Your task to perform on an android device: Open the web browser Image 0: 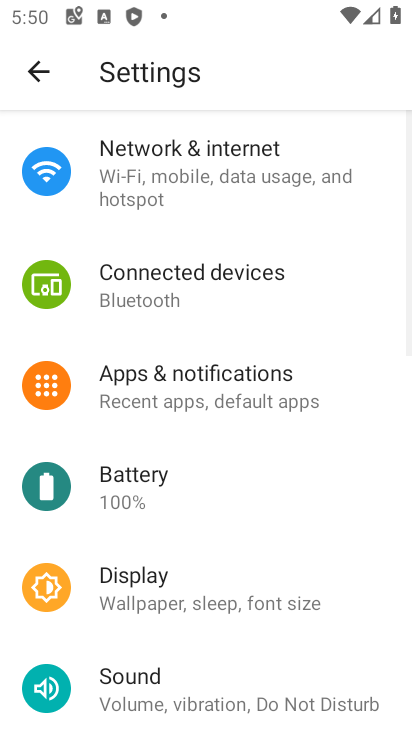
Step 0: press home button
Your task to perform on an android device: Open the web browser Image 1: 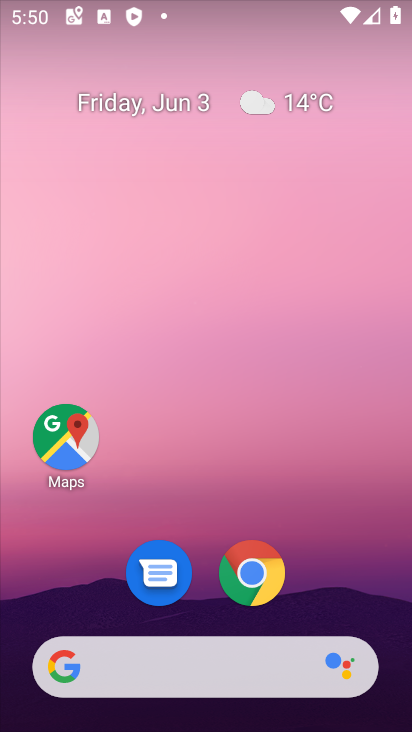
Step 1: drag from (154, 615) to (214, 149)
Your task to perform on an android device: Open the web browser Image 2: 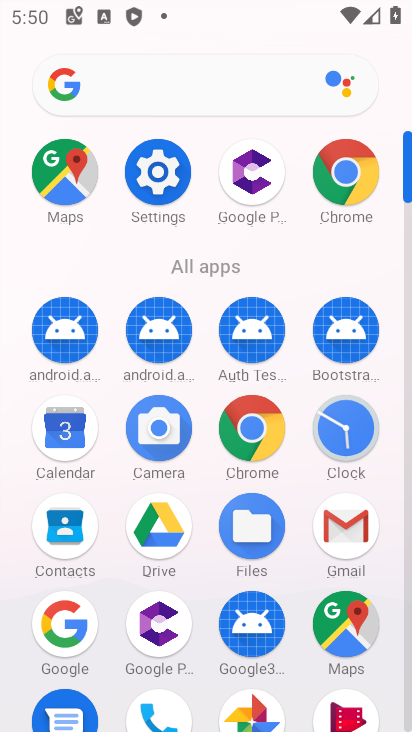
Step 2: click (259, 432)
Your task to perform on an android device: Open the web browser Image 3: 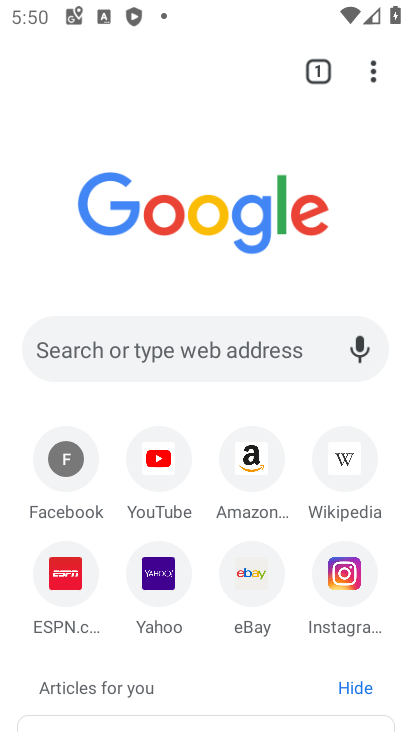
Step 3: task complete